Your task to perform on an android device: Open settings Image 0: 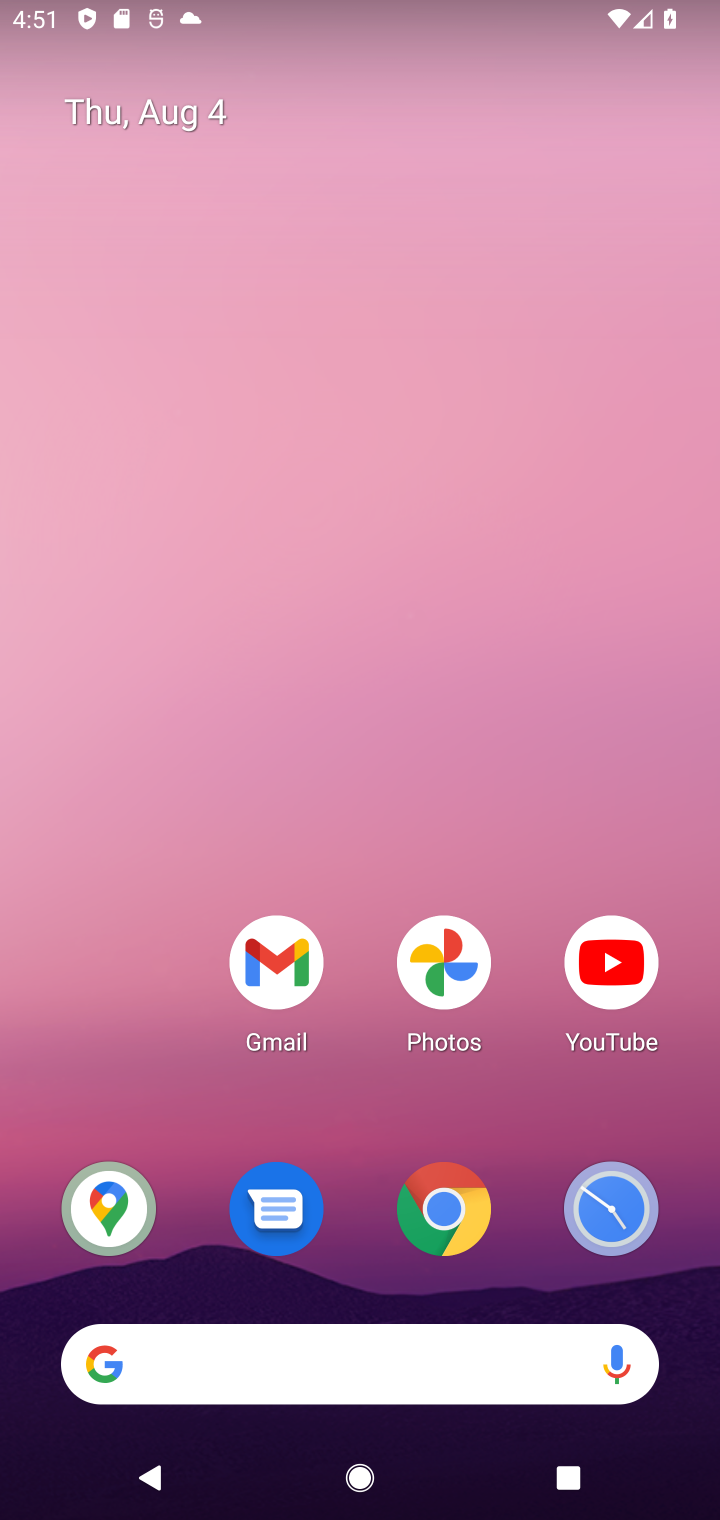
Step 0: drag from (318, 928) to (329, 295)
Your task to perform on an android device: Open settings Image 1: 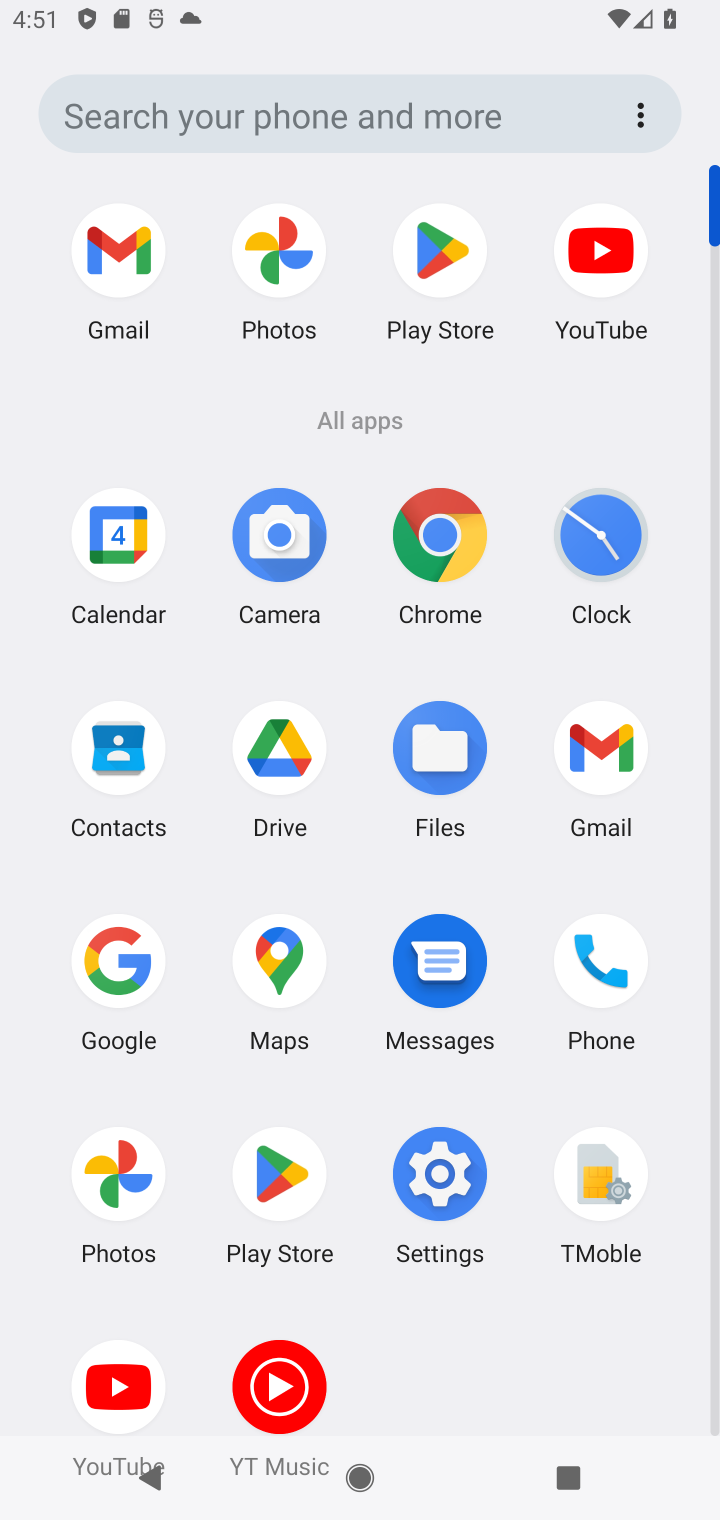
Step 1: click (450, 1182)
Your task to perform on an android device: Open settings Image 2: 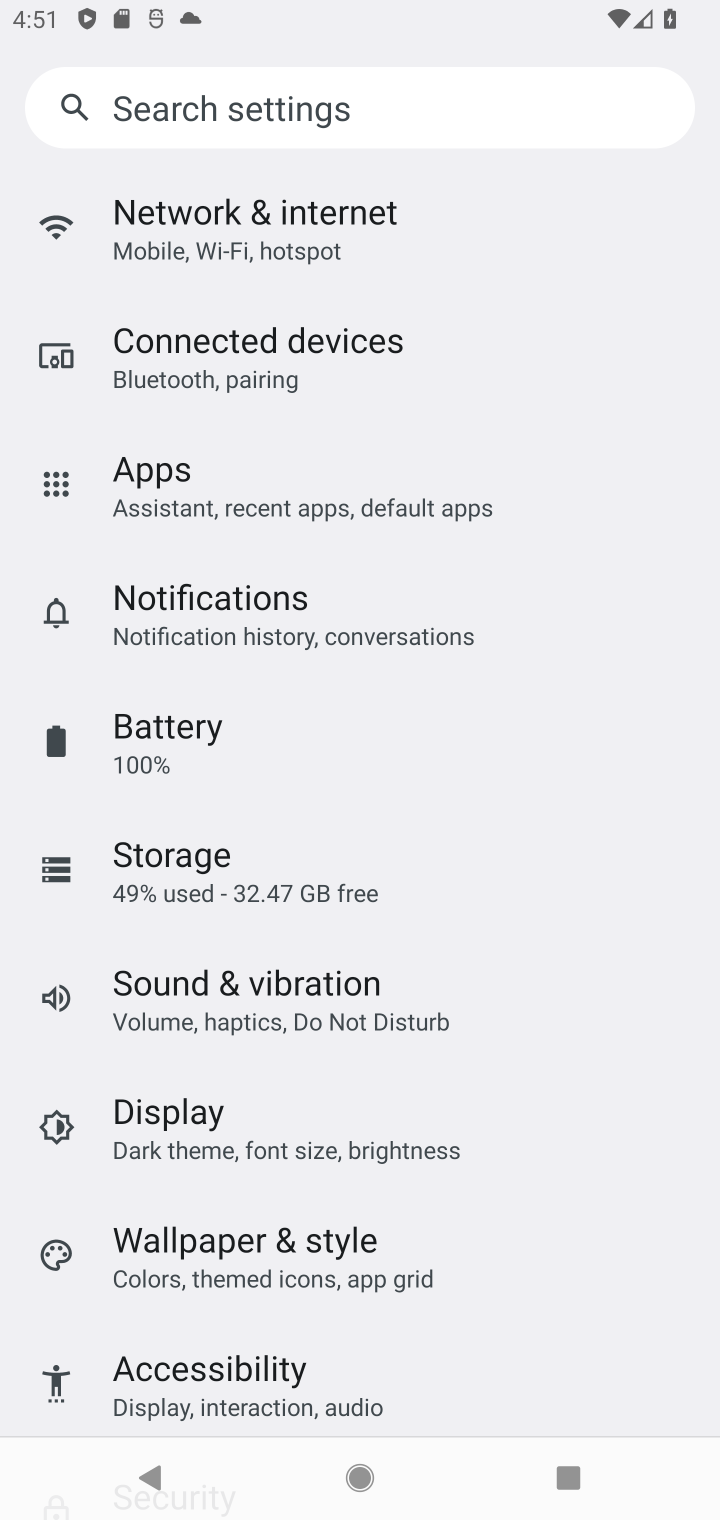
Step 2: task complete